Your task to perform on an android device: change notification settings in the gmail app Image 0: 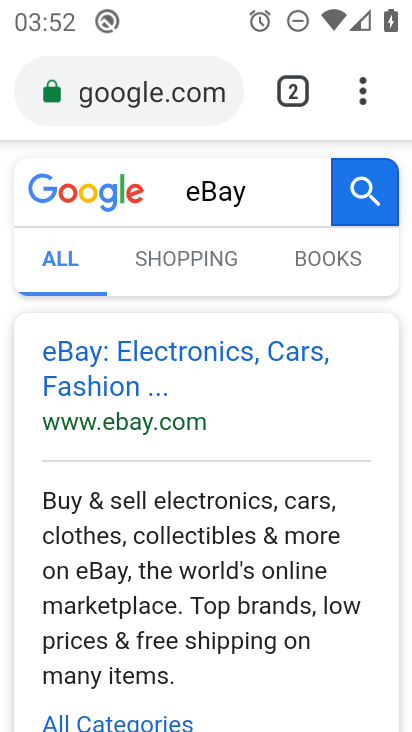
Step 0: press home button
Your task to perform on an android device: change notification settings in the gmail app Image 1: 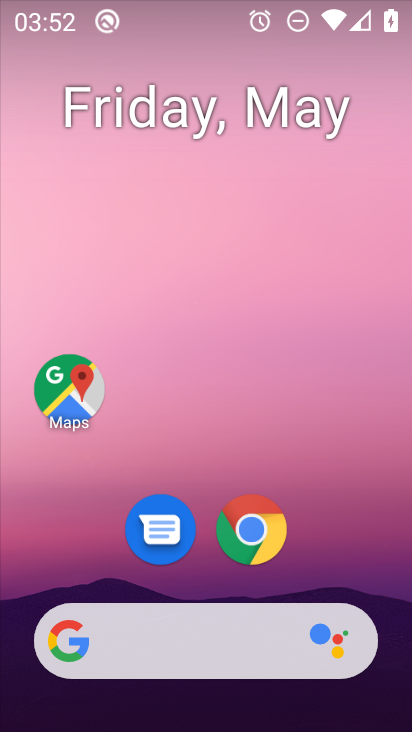
Step 1: drag from (393, 649) to (373, 224)
Your task to perform on an android device: change notification settings in the gmail app Image 2: 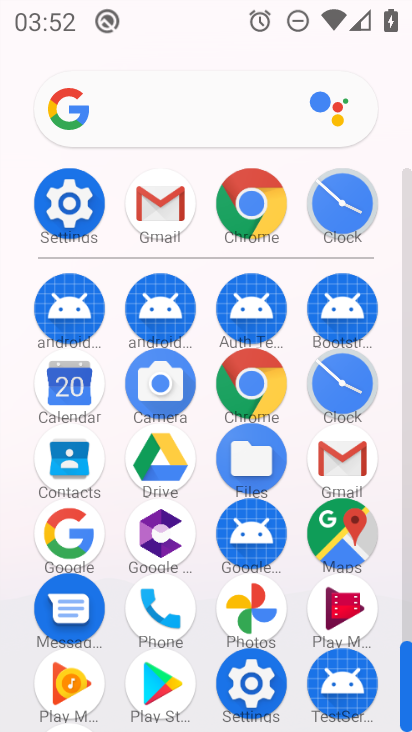
Step 2: click (321, 456)
Your task to perform on an android device: change notification settings in the gmail app Image 3: 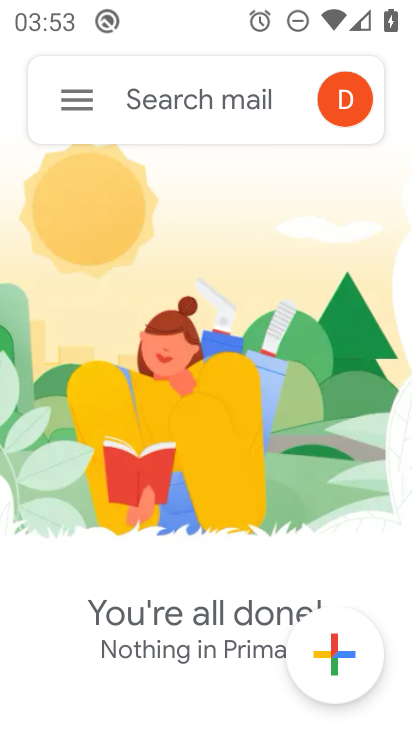
Step 3: click (61, 100)
Your task to perform on an android device: change notification settings in the gmail app Image 4: 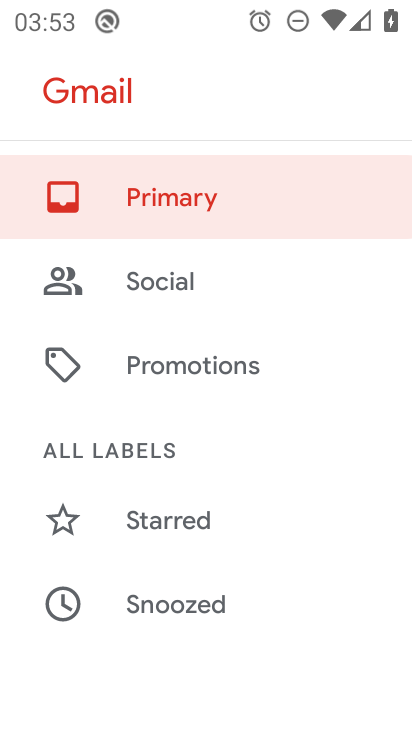
Step 4: drag from (274, 649) to (253, 76)
Your task to perform on an android device: change notification settings in the gmail app Image 5: 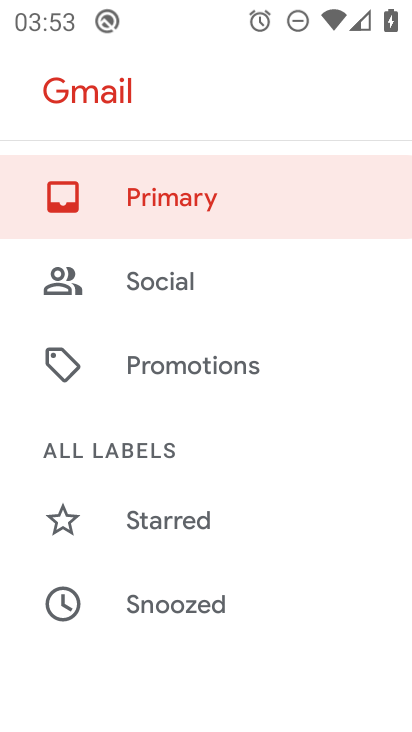
Step 5: drag from (277, 616) to (298, 198)
Your task to perform on an android device: change notification settings in the gmail app Image 6: 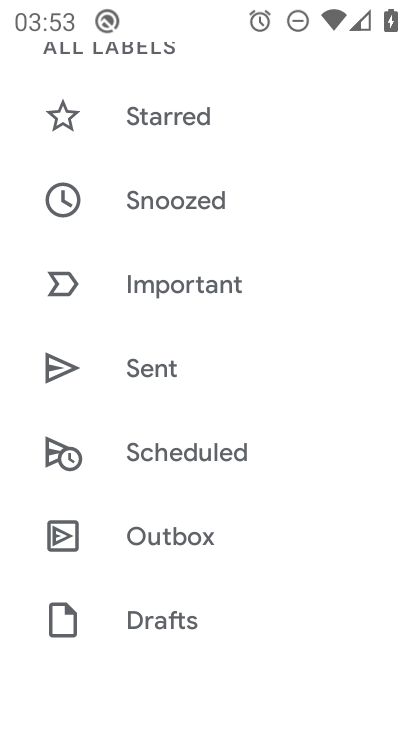
Step 6: drag from (262, 621) to (291, 141)
Your task to perform on an android device: change notification settings in the gmail app Image 7: 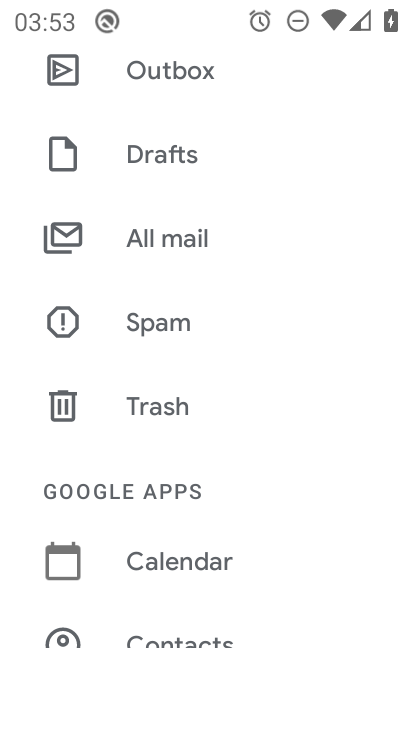
Step 7: drag from (258, 630) to (267, 134)
Your task to perform on an android device: change notification settings in the gmail app Image 8: 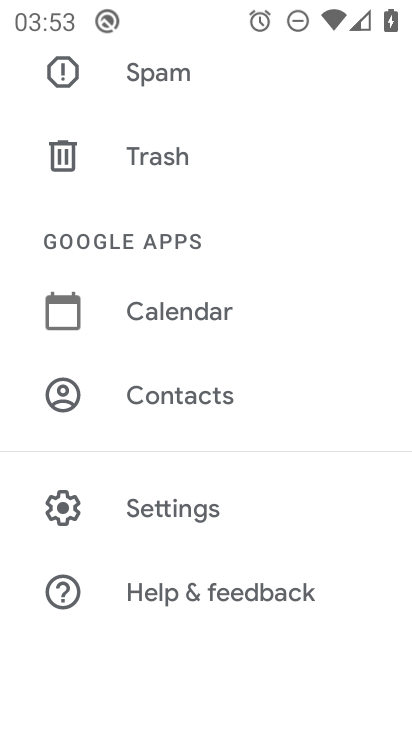
Step 8: click (131, 494)
Your task to perform on an android device: change notification settings in the gmail app Image 9: 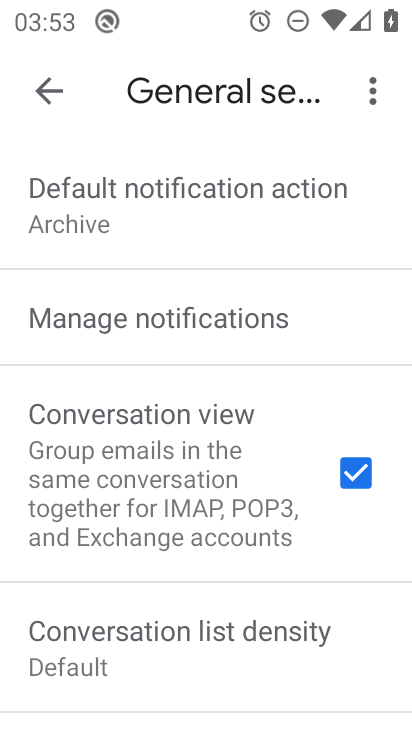
Step 9: click (109, 315)
Your task to perform on an android device: change notification settings in the gmail app Image 10: 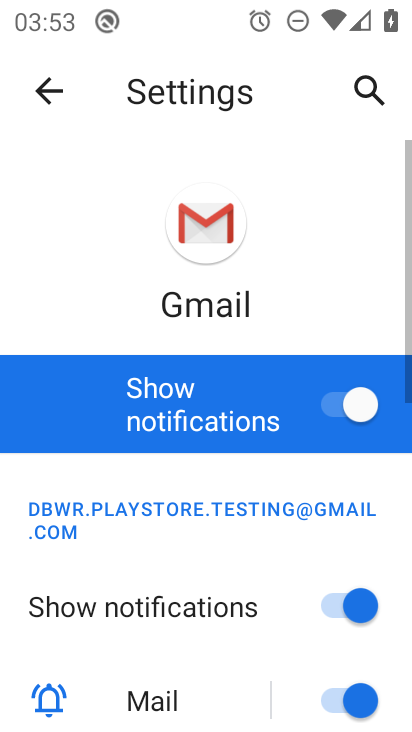
Step 10: click (331, 405)
Your task to perform on an android device: change notification settings in the gmail app Image 11: 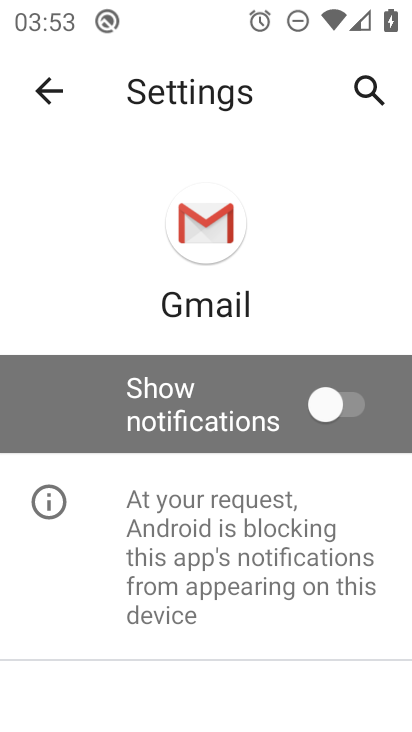
Step 11: task complete